Your task to perform on an android device: turn on bluetooth scan Image 0: 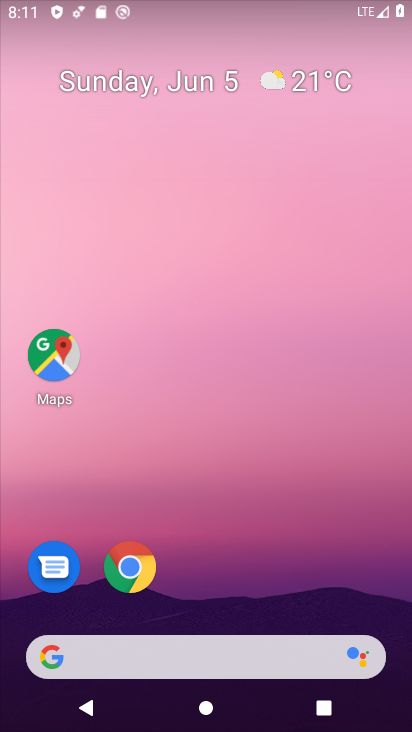
Step 0: drag from (223, 540) to (259, 372)
Your task to perform on an android device: turn on bluetooth scan Image 1: 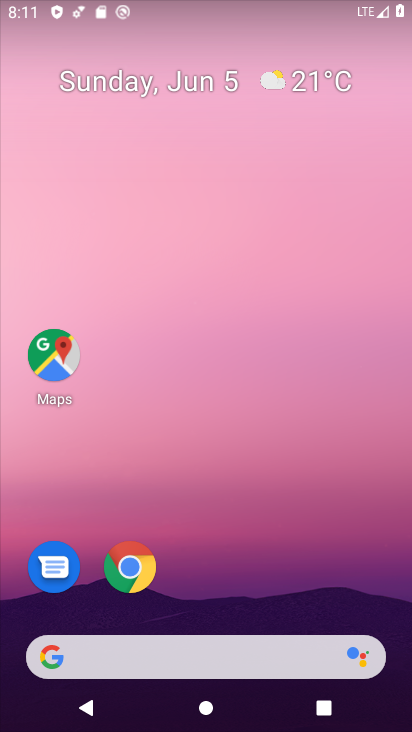
Step 1: click (261, 245)
Your task to perform on an android device: turn on bluetooth scan Image 2: 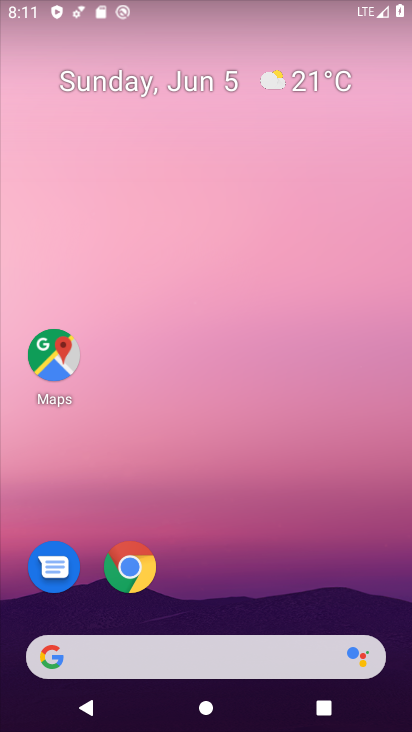
Step 2: drag from (214, 635) to (214, 216)
Your task to perform on an android device: turn on bluetooth scan Image 3: 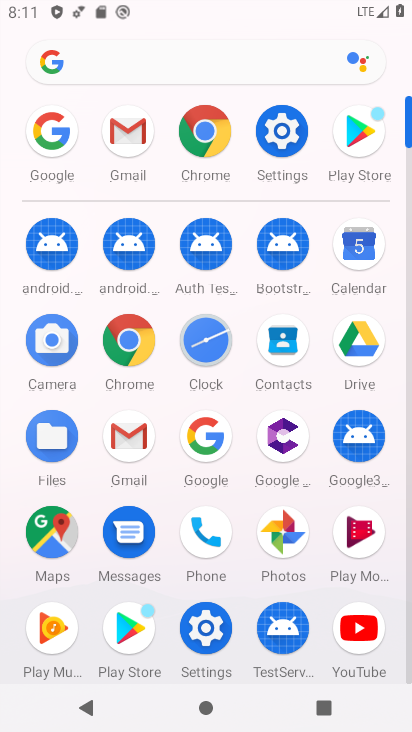
Step 3: click (267, 137)
Your task to perform on an android device: turn on bluetooth scan Image 4: 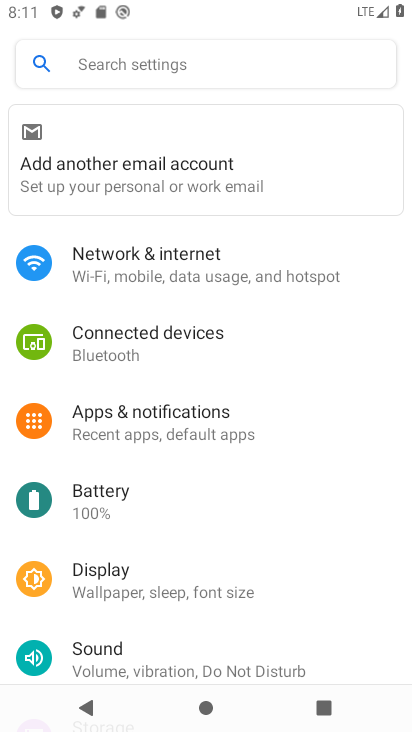
Step 4: drag from (176, 664) to (210, 348)
Your task to perform on an android device: turn on bluetooth scan Image 5: 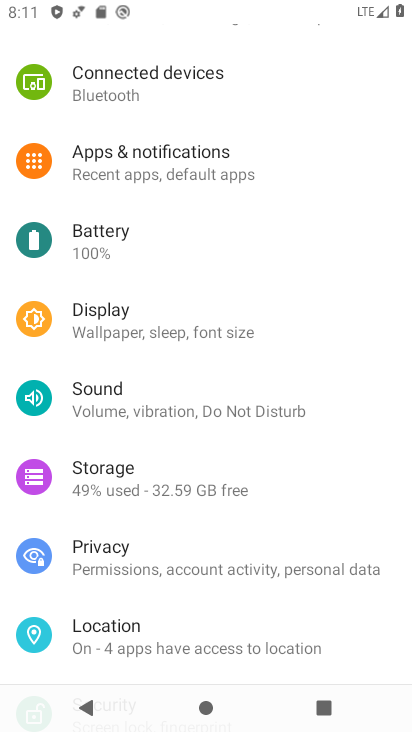
Step 5: click (163, 639)
Your task to perform on an android device: turn on bluetooth scan Image 6: 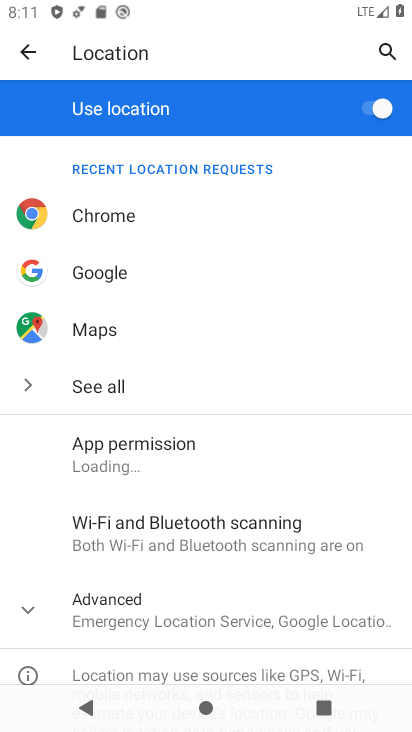
Step 6: drag from (185, 670) to (225, 357)
Your task to perform on an android device: turn on bluetooth scan Image 7: 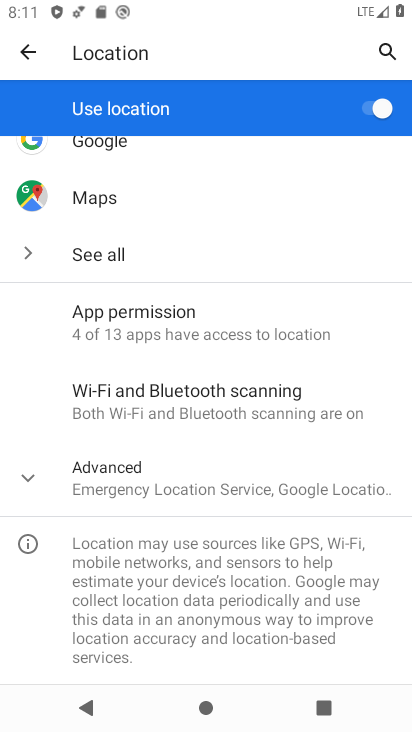
Step 7: click (216, 391)
Your task to perform on an android device: turn on bluetooth scan Image 8: 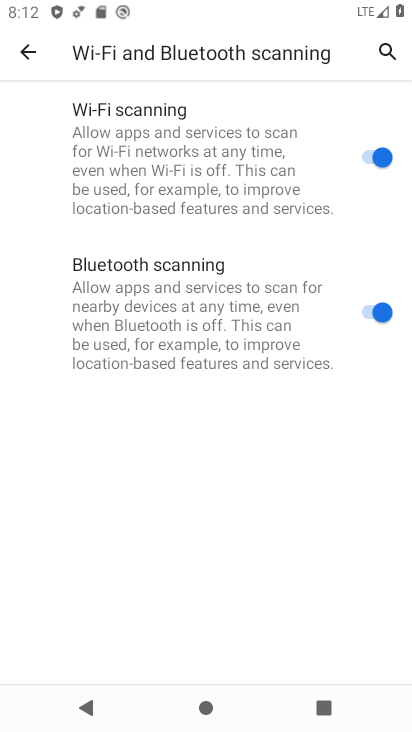
Step 8: task complete